Your task to perform on an android device: Show me recent news Image 0: 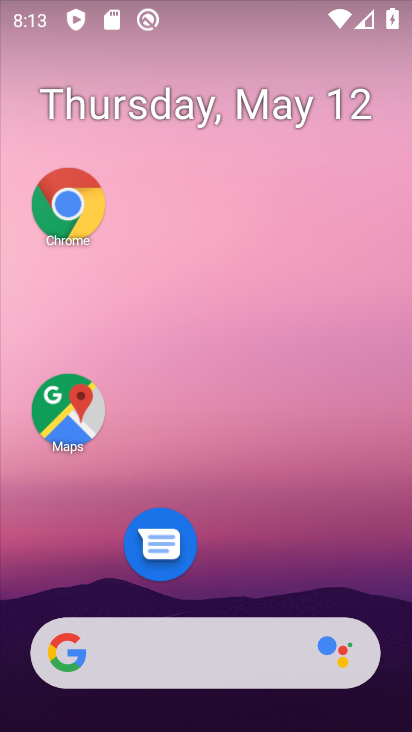
Step 0: click (213, 647)
Your task to perform on an android device: Show me recent news Image 1: 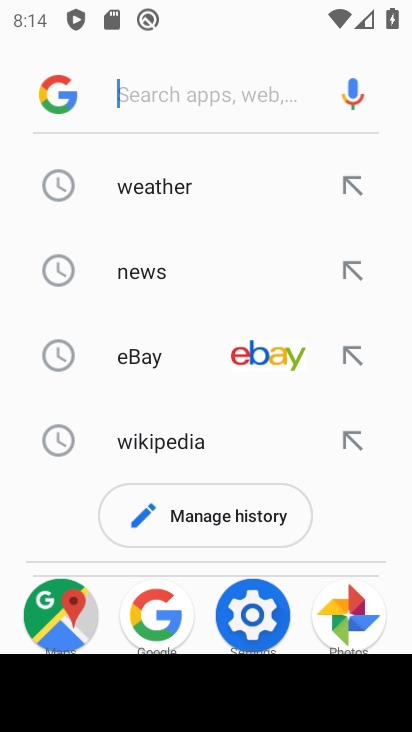
Step 1: click (123, 271)
Your task to perform on an android device: Show me recent news Image 2: 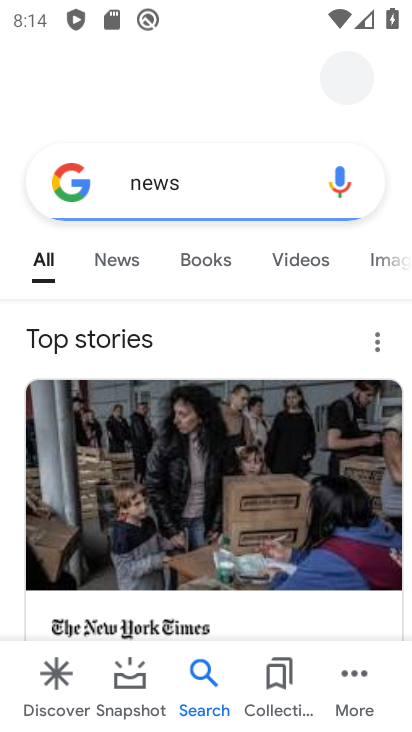
Step 2: task complete